Your task to perform on an android device: Open internet settings Image 0: 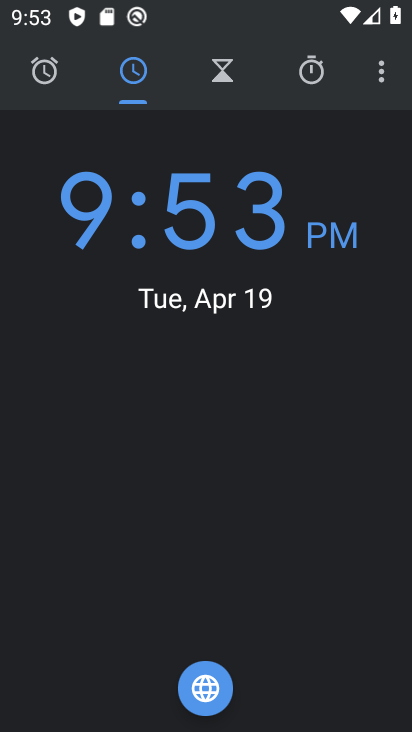
Step 0: press home button
Your task to perform on an android device: Open internet settings Image 1: 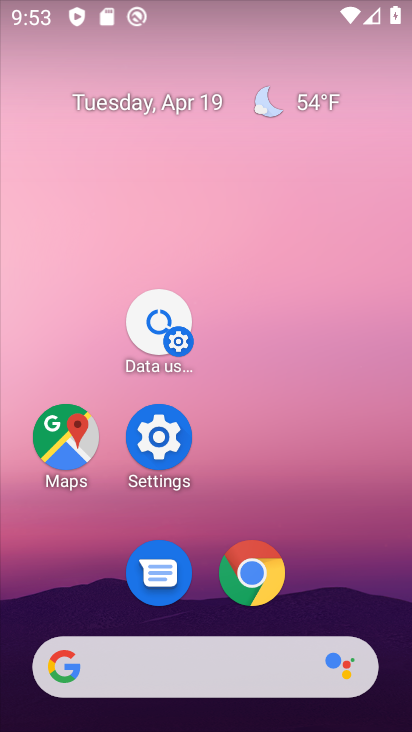
Step 1: click (165, 443)
Your task to perform on an android device: Open internet settings Image 2: 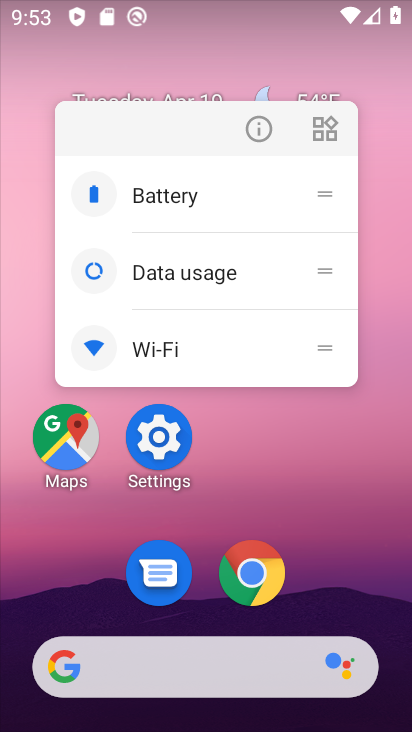
Step 2: click (156, 432)
Your task to perform on an android device: Open internet settings Image 3: 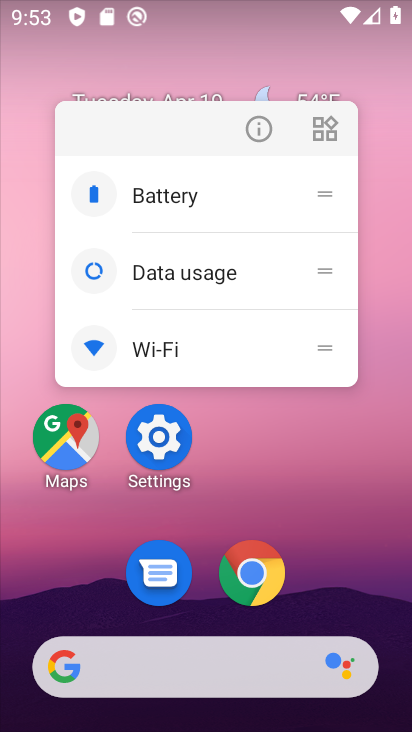
Step 3: click (157, 437)
Your task to perform on an android device: Open internet settings Image 4: 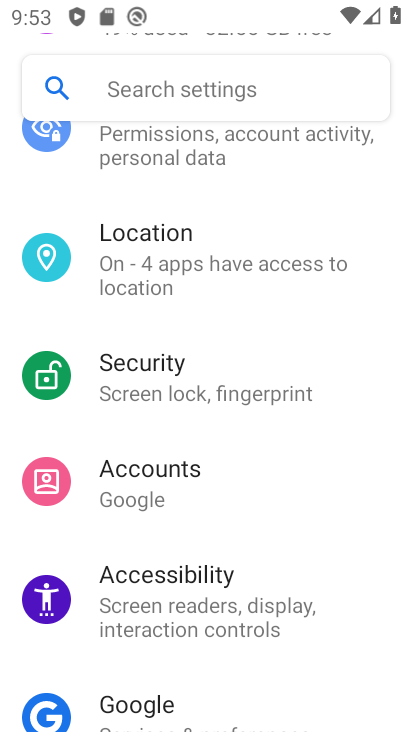
Step 4: drag from (377, 263) to (394, 608)
Your task to perform on an android device: Open internet settings Image 5: 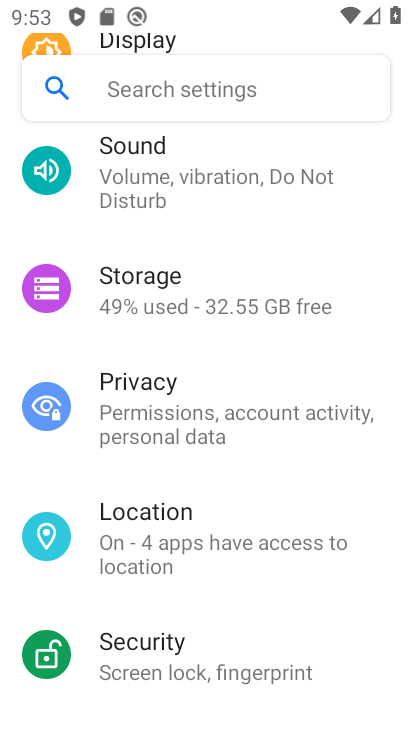
Step 5: drag from (291, 217) to (311, 548)
Your task to perform on an android device: Open internet settings Image 6: 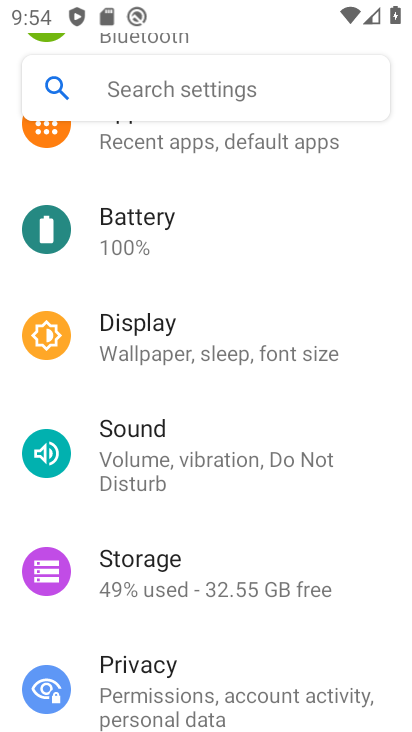
Step 6: drag from (343, 246) to (332, 622)
Your task to perform on an android device: Open internet settings Image 7: 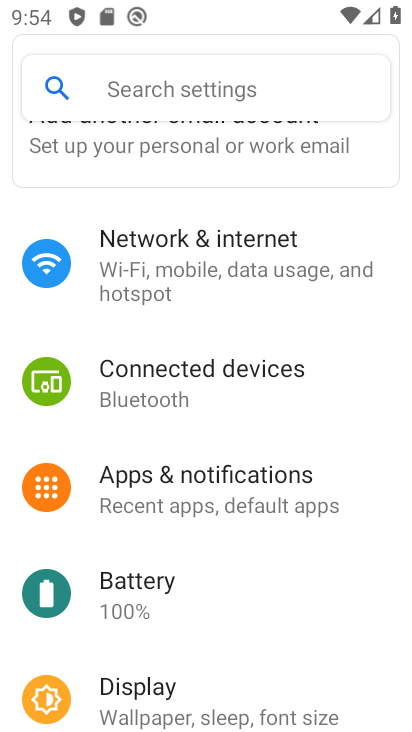
Step 7: click (174, 253)
Your task to perform on an android device: Open internet settings Image 8: 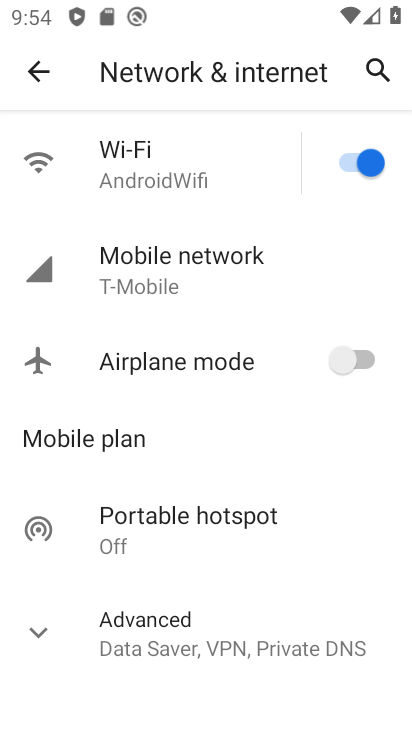
Step 8: drag from (208, 361) to (186, 173)
Your task to perform on an android device: Open internet settings Image 9: 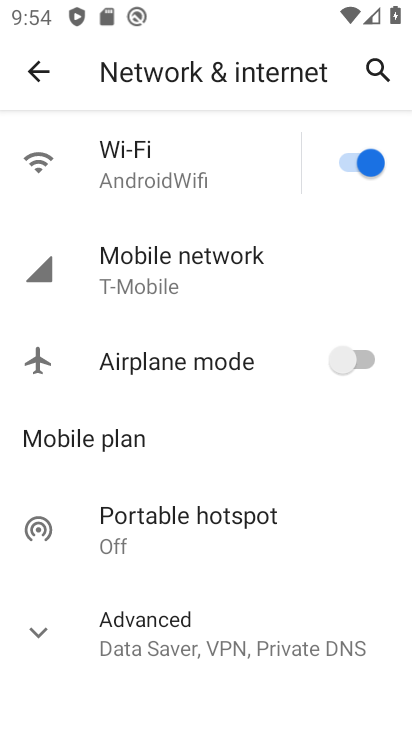
Step 9: click (37, 642)
Your task to perform on an android device: Open internet settings Image 10: 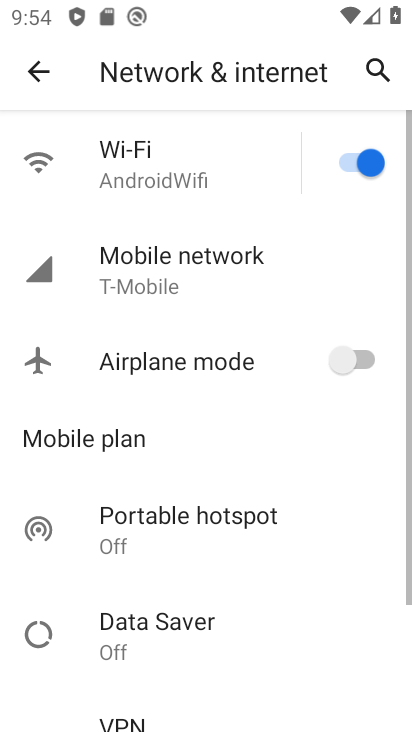
Step 10: task complete